Your task to perform on an android device: turn on notifications settings in the gmail app Image 0: 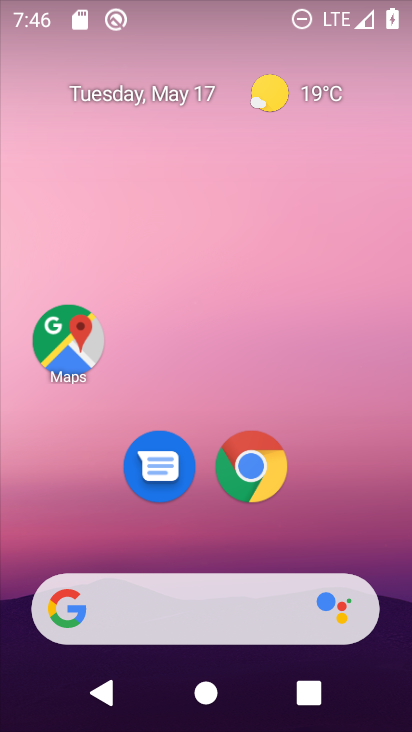
Step 0: drag from (164, 608) to (265, 161)
Your task to perform on an android device: turn on notifications settings in the gmail app Image 1: 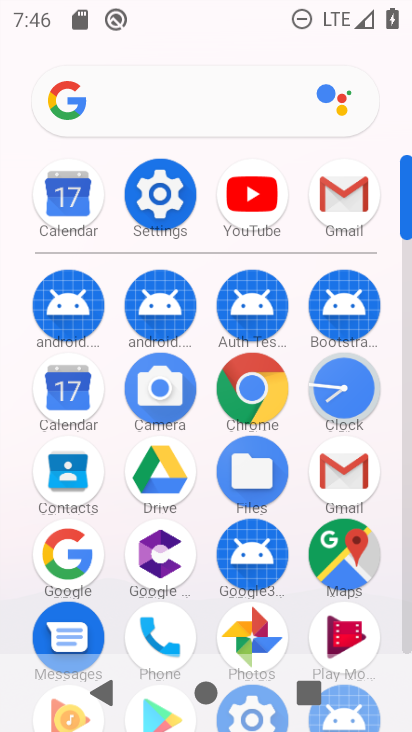
Step 1: click (335, 204)
Your task to perform on an android device: turn on notifications settings in the gmail app Image 2: 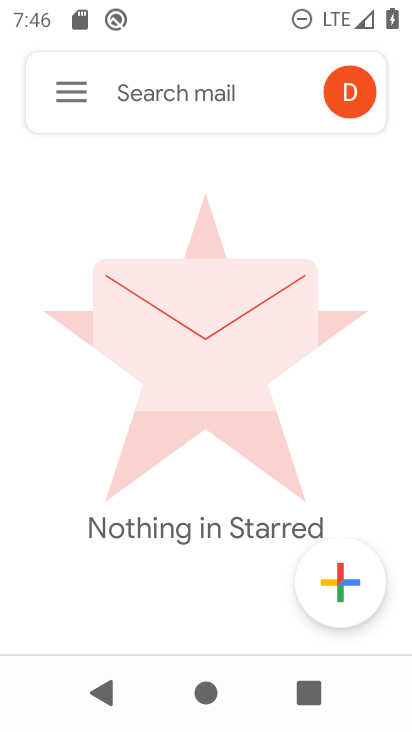
Step 2: click (54, 93)
Your task to perform on an android device: turn on notifications settings in the gmail app Image 3: 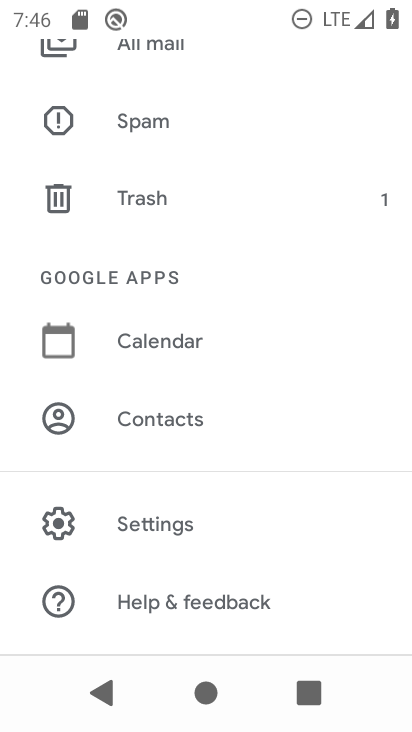
Step 3: click (166, 524)
Your task to perform on an android device: turn on notifications settings in the gmail app Image 4: 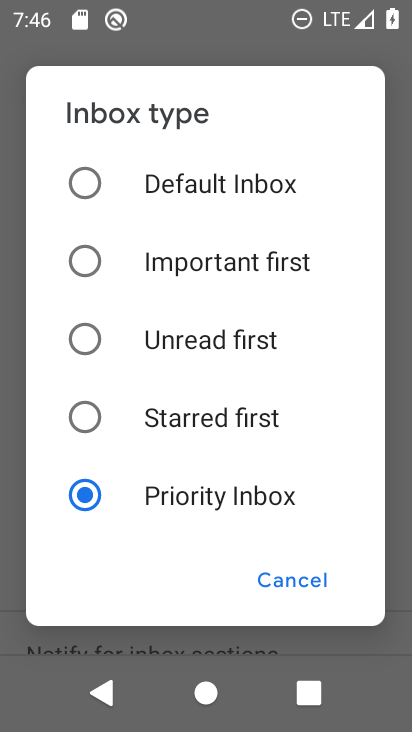
Step 4: click (271, 584)
Your task to perform on an android device: turn on notifications settings in the gmail app Image 5: 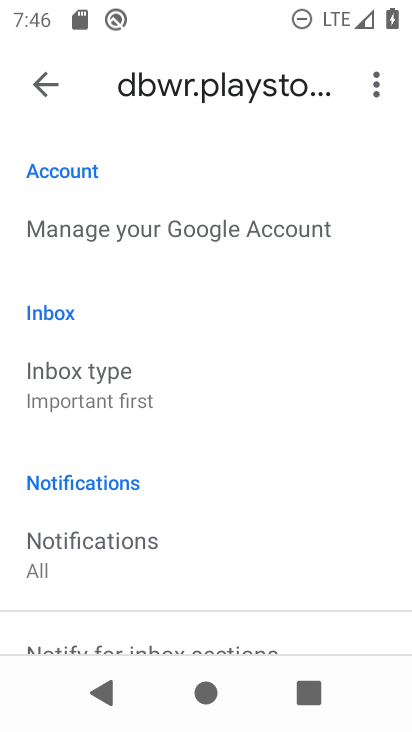
Step 5: click (98, 541)
Your task to perform on an android device: turn on notifications settings in the gmail app Image 6: 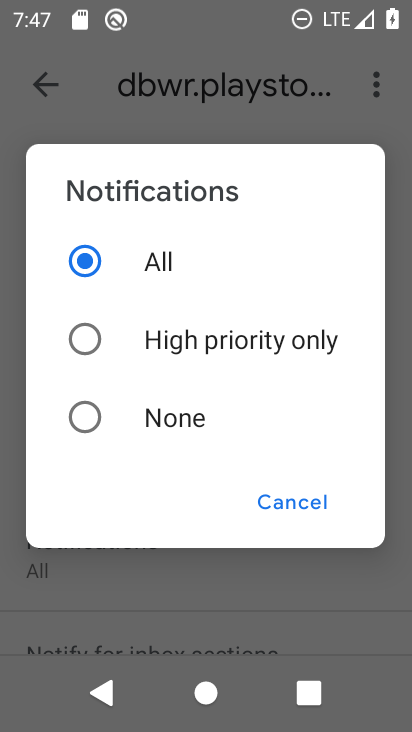
Step 6: task complete